Your task to perform on an android device: delete browsing data in the chrome app Image 0: 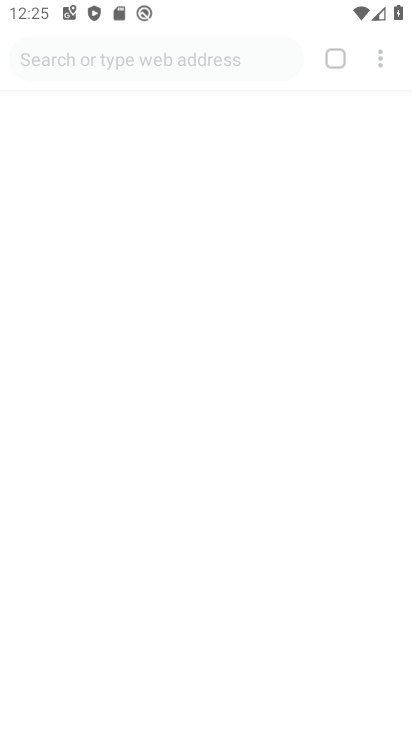
Step 0: click (47, 387)
Your task to perform on an android device: delete browsing data in the chrome app Image 1: 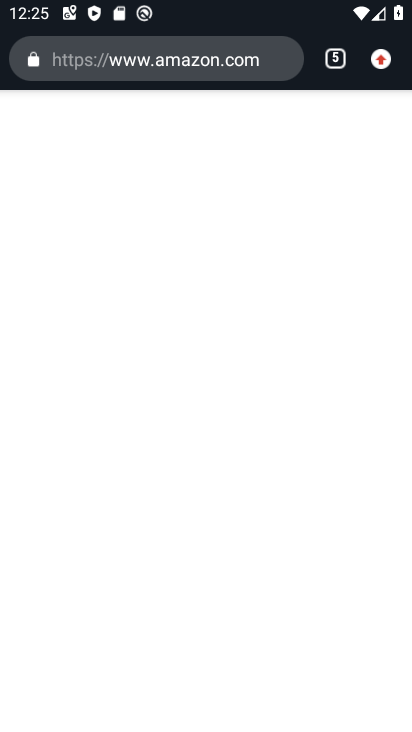
Step 1: click (379, 63)
Your task to perform on an android device: delete browsing data in the chrome app Image 2: 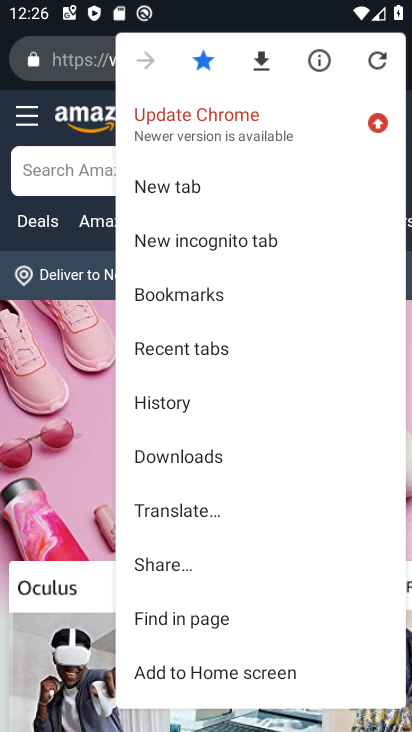
Step 2: click (158, 400)
Your task to perform on an android device: delete browsing data in the chrome app Image 3: 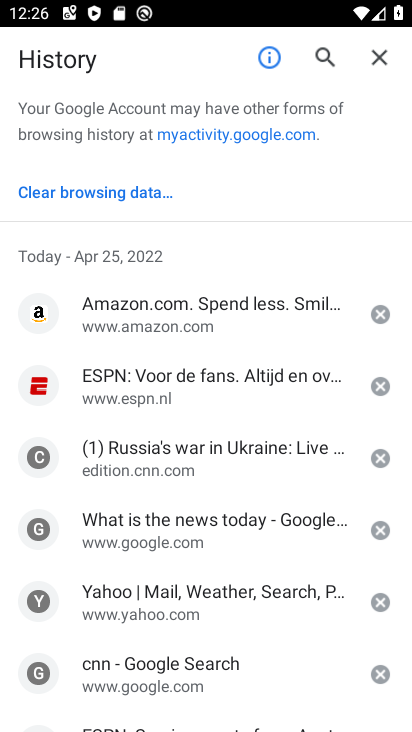
Step 3: click (119, 195)
Your task to perform on an android device: delete browsing data in the chrome app Image 4: 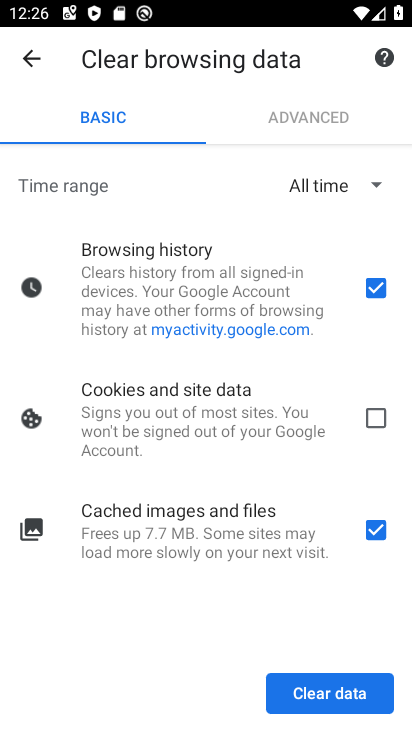
Step 4: click (376, 537)
Your task to perform on an android device: delete browsing data in the chrome app Image 5: 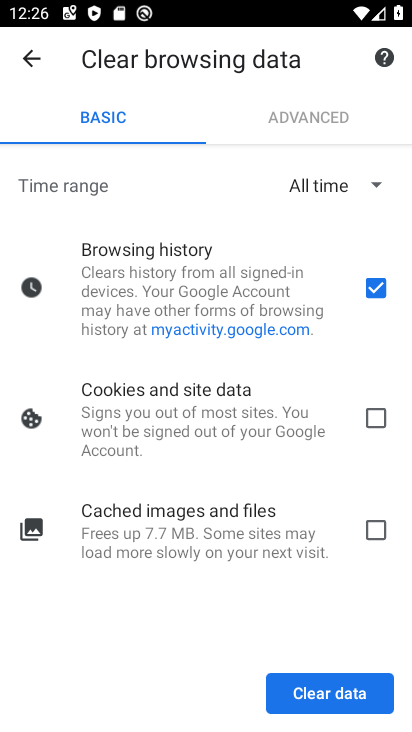
Step 5: click (343, 692)
Your task to perform on an android device: delete browsing data in the chrome app Image 6: 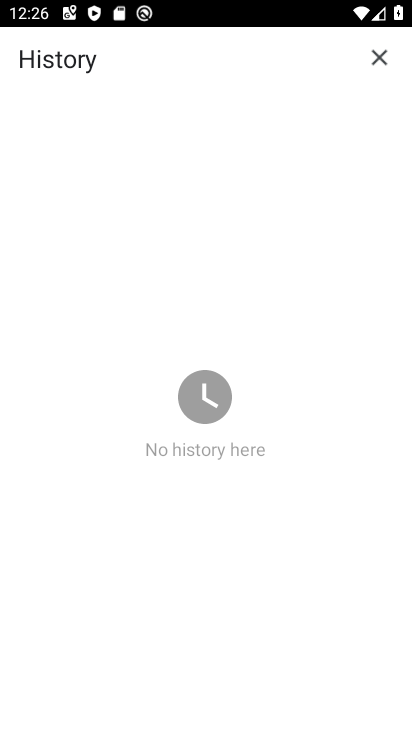
Step 6: task complete